Your task to perform on an android device: search for starred emails in the gmail app Image 0: 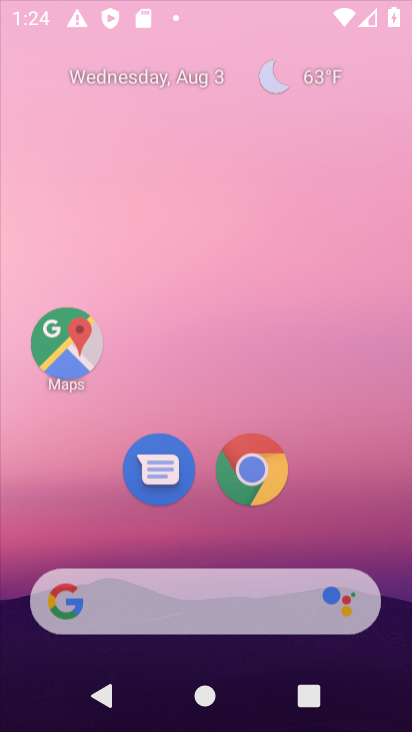
Step 0: press home button
Your task to perform on an android device: search for starred emails in the gmail app Image 1: 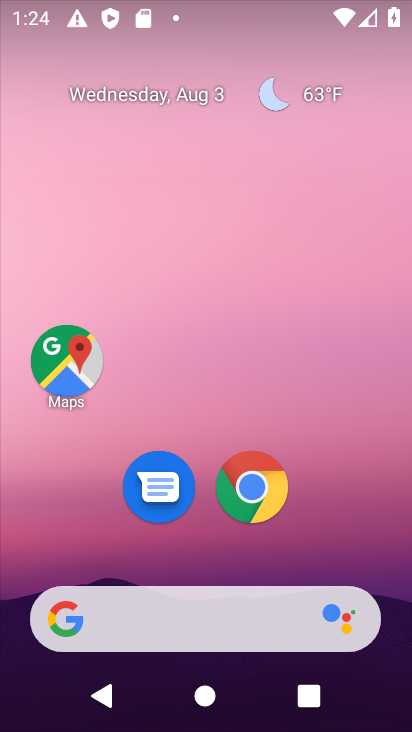
Step 1: drag from (332, 530) to (326, 13)
Your task to perform on an android device: search for starred emails in the gmail app Image 2: 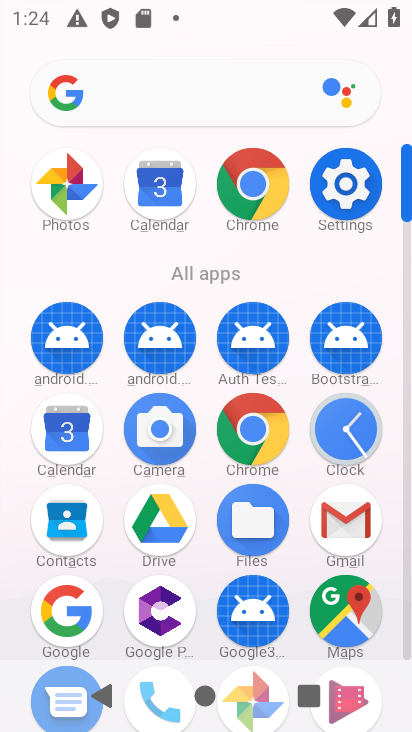
Step 2: click (360, 522)
Your task to perform on an android device: search for starred emails in the gmail app Image 3: 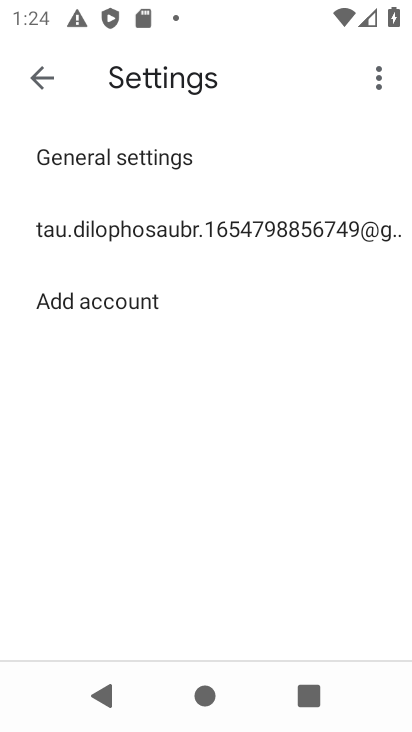
Step 3: click (41, 82)
Your task to perform on an android device: search for starred emails in the gmail app Image 4: 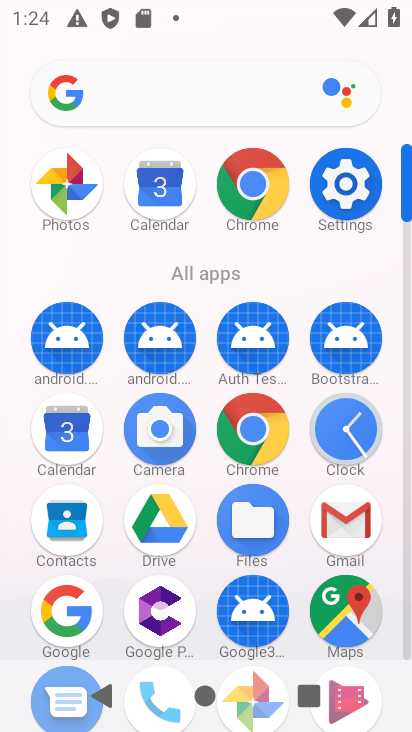
Step 4: click (342, 508)
Your task to perform on an android device: search for starred emails in the gmail app Image 5: 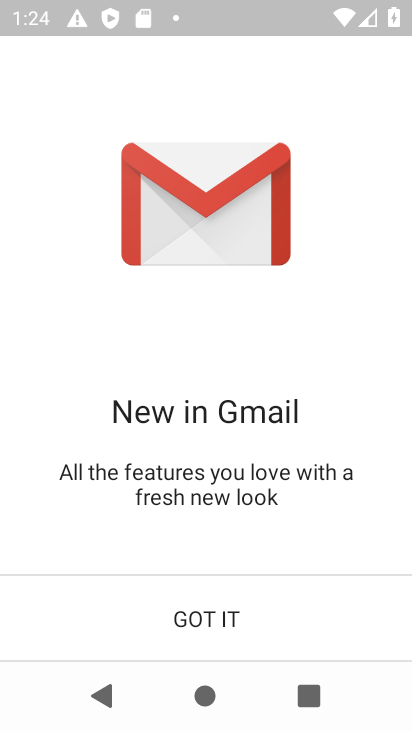
Step 5: click (222, 605)
Your task to perform on an android device: search for starred emails in the gmail app Image 6: 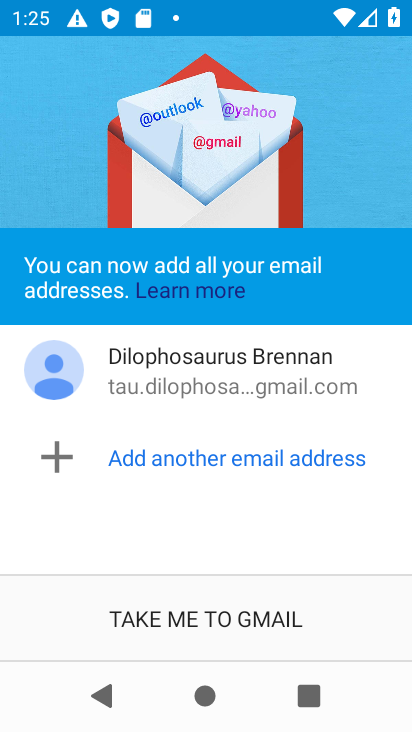
Step 6: click (222, 605)
Your task to perform on an android device: search for starred emails in the gmail app Image 7: 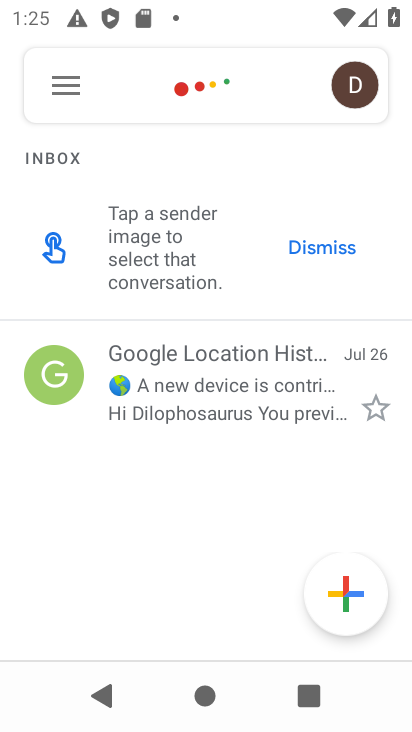
Step 7: click (65, 84)
Your task to perform on an android device: search for starred emails in the gmail app Image 8: 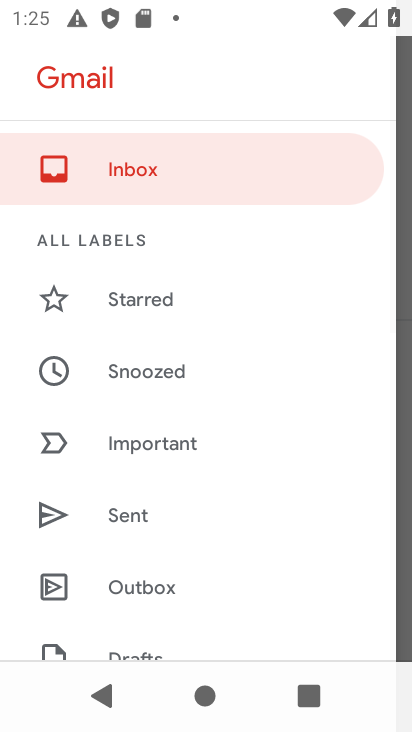
Step 8: click (124, 296)
Your task to perform on an android device: search for starred emails in the gmail app Image 9: 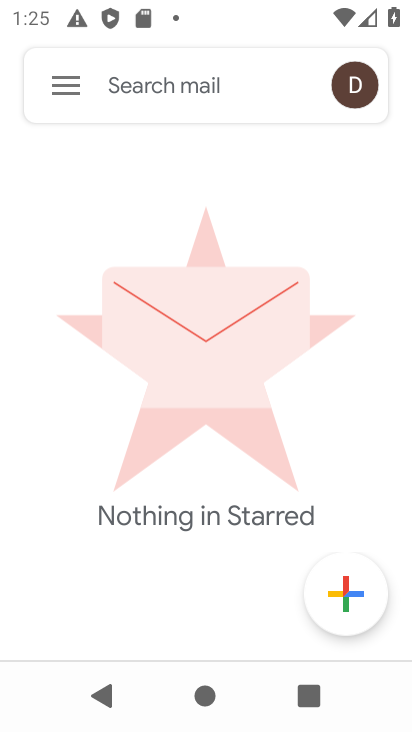
Step 9: task complete